Your task to perform on an android device: install app "Microsoft Excel" Image 0: 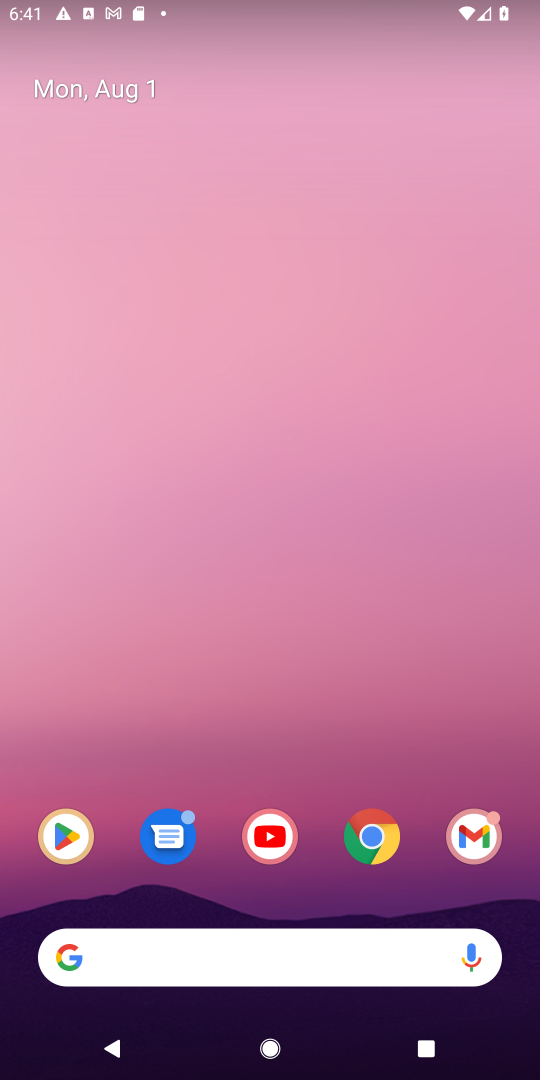
Step 0: click (67, 844)
Your task to perform on an android device: install app "Microsoft Excel" Image 1: 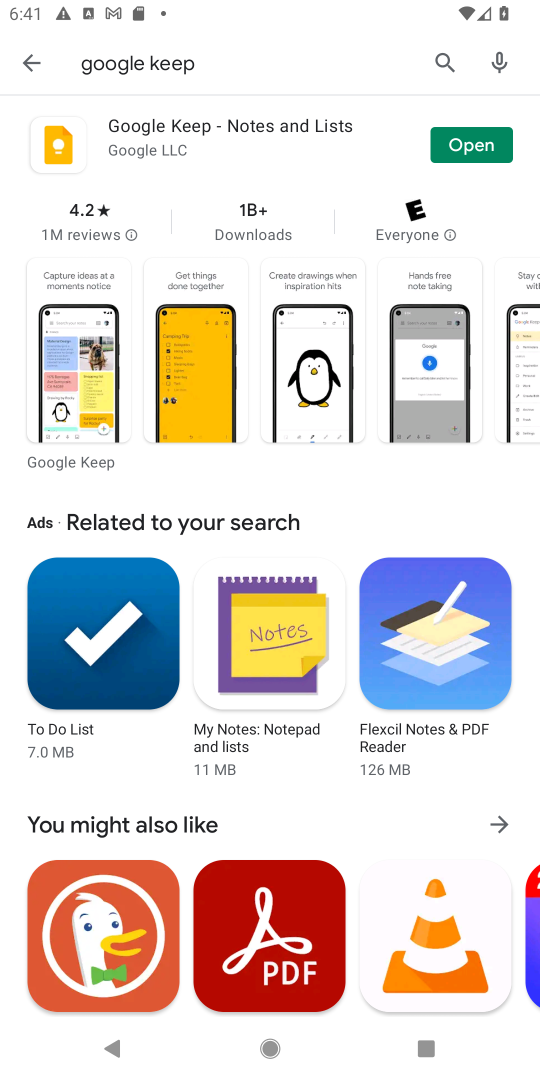
Step 1: click (444, 47)
Your task to perform on an android device: install app "Microsoft Excel" Image 2: 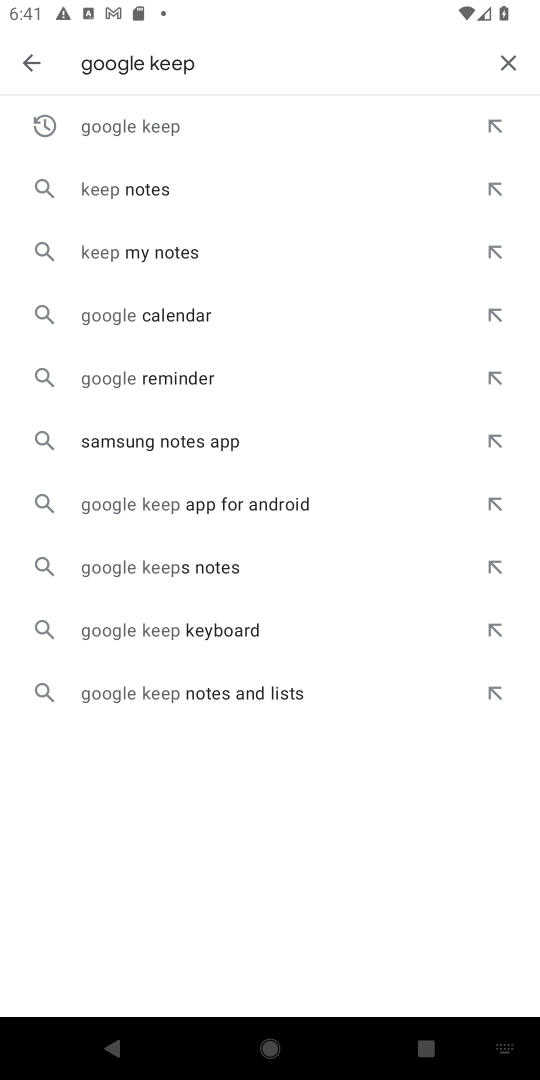
Step 2: click (516, 55)
Your task to perform on an android device: install app "Microsoft Excel" Image 3: 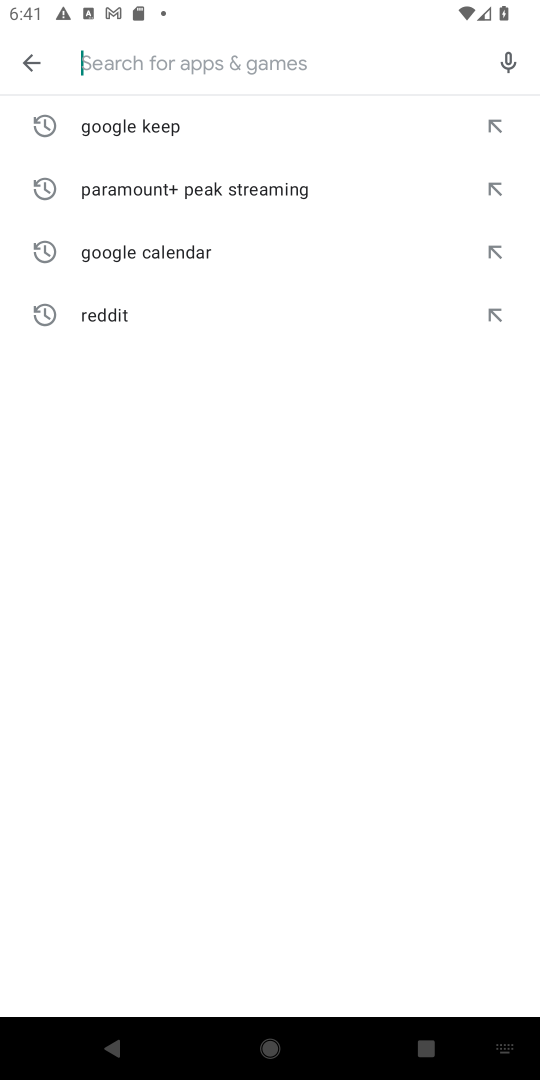
Step 3: type "Microsoft Excel"
Your task to perform on an android device: install app "Microsoft Excel" Image 4: 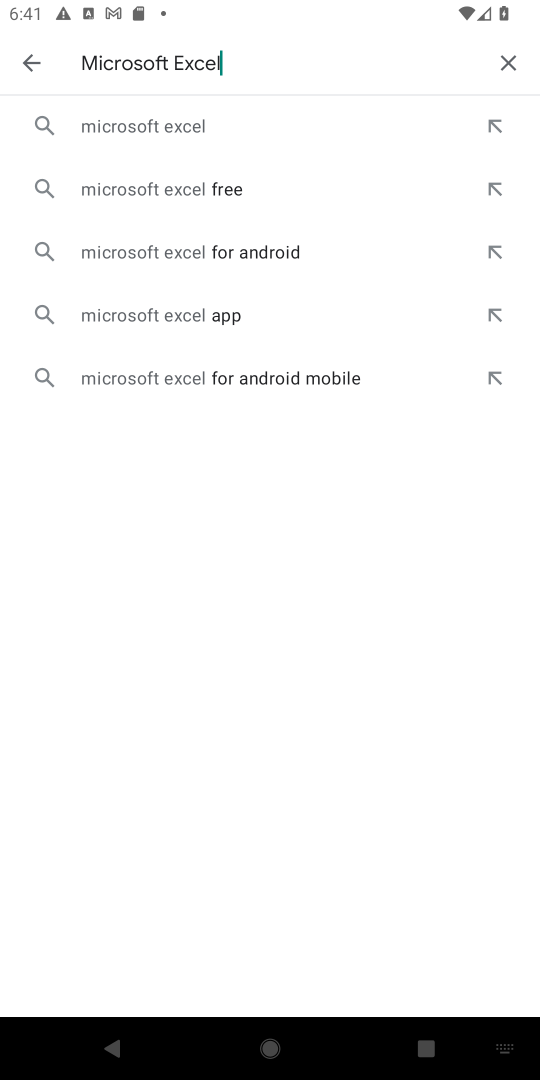
Step 4: click (173, 138)
Your task to perform on an android device: install app "Microsoft Excel" Image 5: 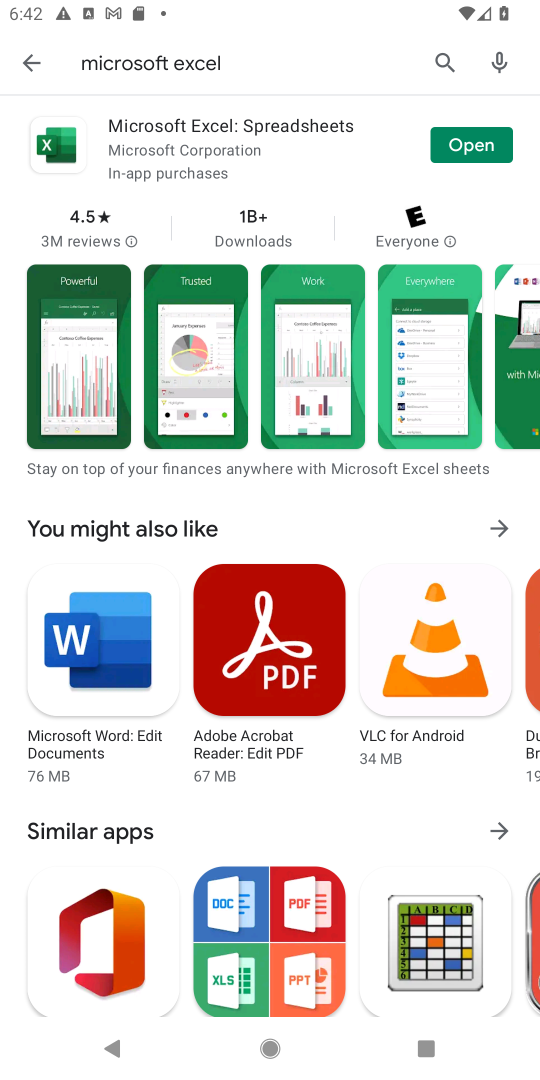
Step 5: task complete